Your task to perform on an android device: add a label to a message in the gmail app Image 0: 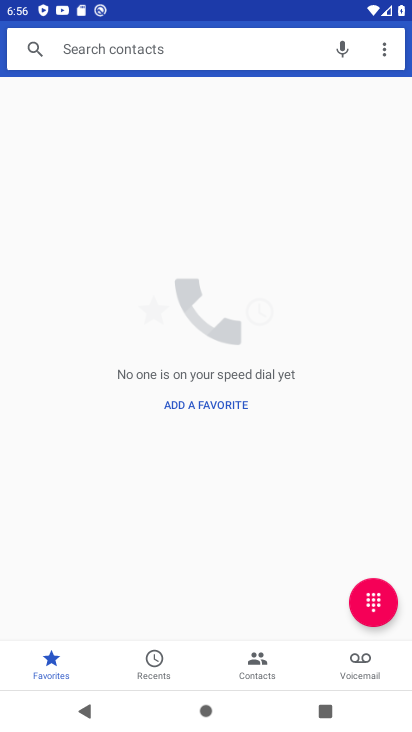
Step 0: press home button
Your task to perform on an android device: add a label to a message in the gmail app Image 1: 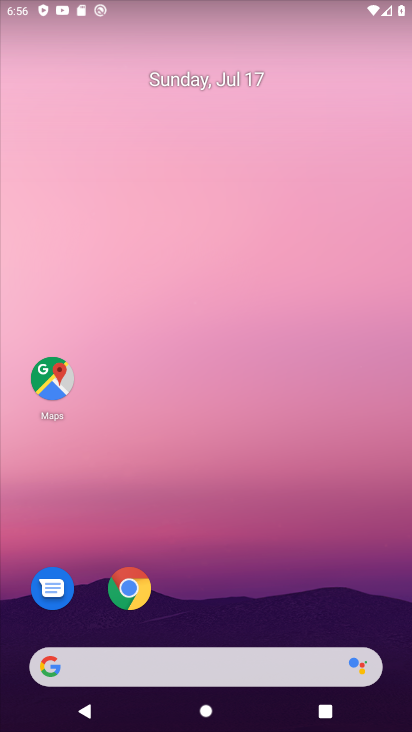
Step 1: drag from (394, 618) to (315, 17)
Your task to perform on an android device: add a label to a message in the gmail app Image 2: 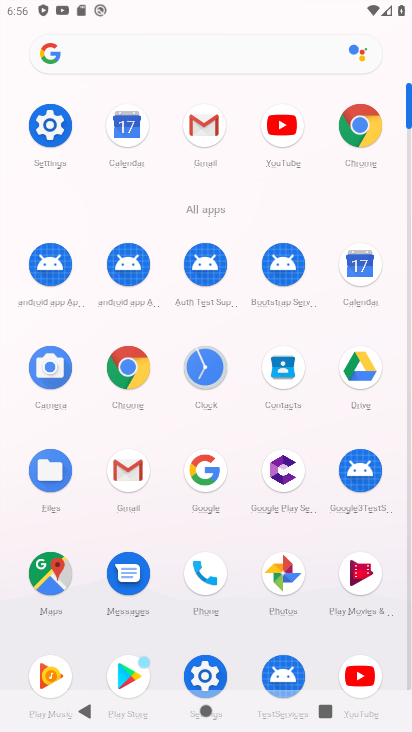
Step 2: click (131, 459)
Your task to perform on an android device: add a label to a message in the gmail app Image 3: 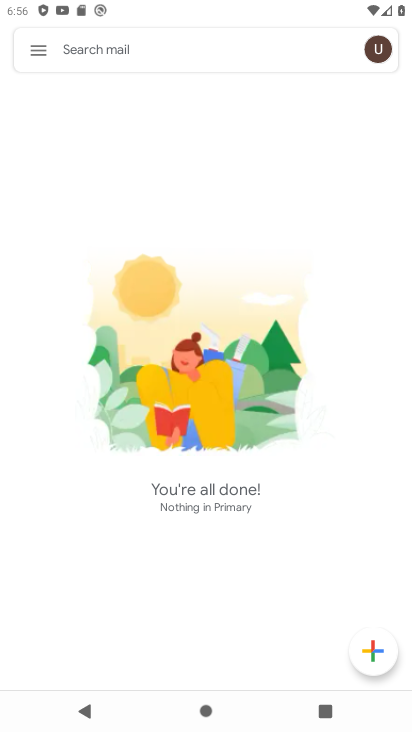
Step 3: task complete